Your task to perform on an android device: Open the web browser Image 0: 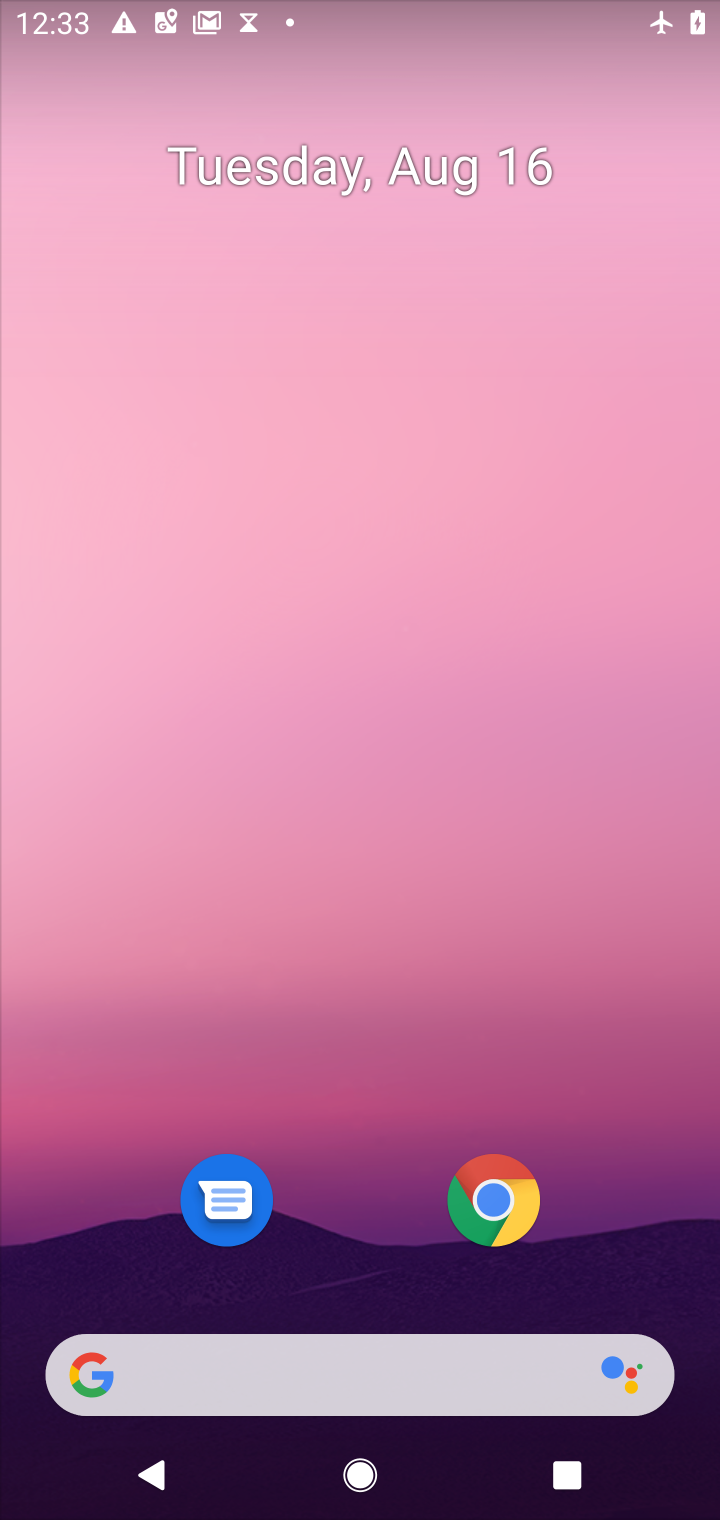
Step 0: click (507, 1218)
Your task to perform on an android device: Open the web browser Image 1: 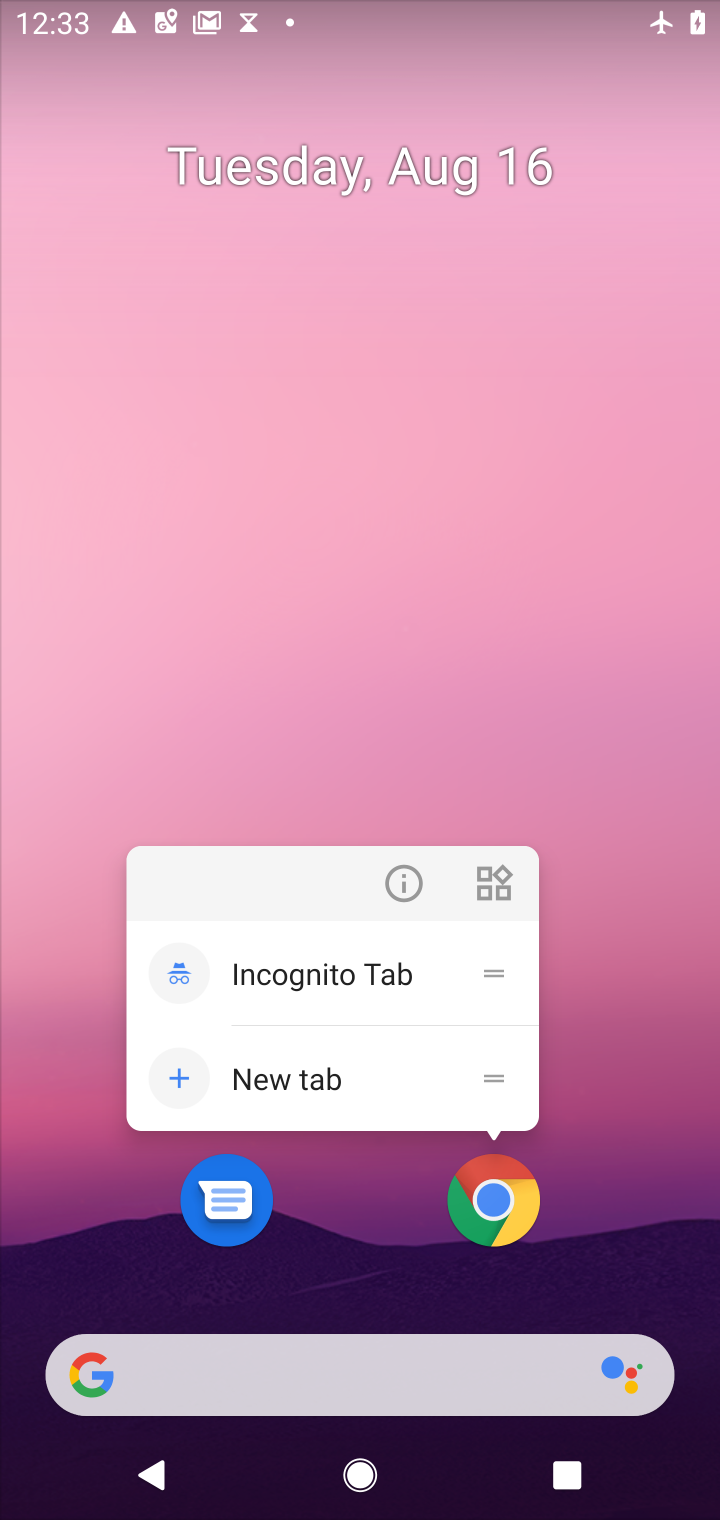
Step 1: click (507, 1218)
Your task to perform on an android device: Open the web browser Image 2: 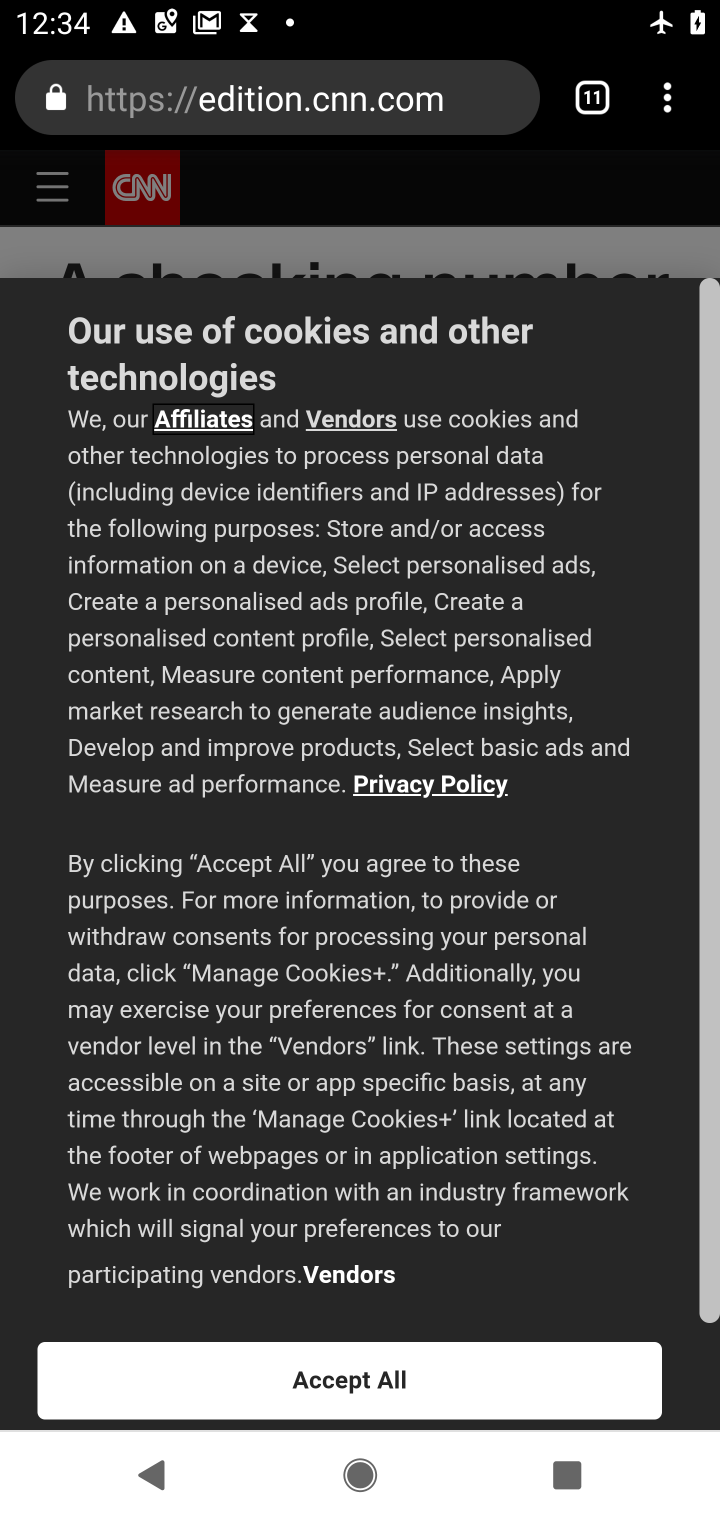
Step 2: task complete